Your task to perform on an android device: Go to Reddit.com Image 0: 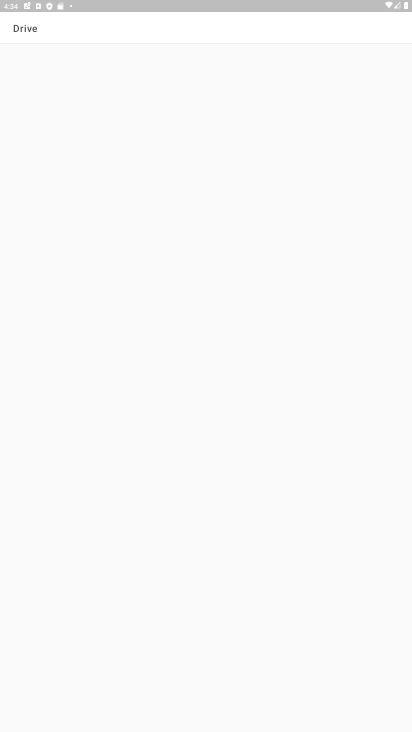
Step 0: press home button
Your task to perform on an android device: Go to Reddit.com Image 1: 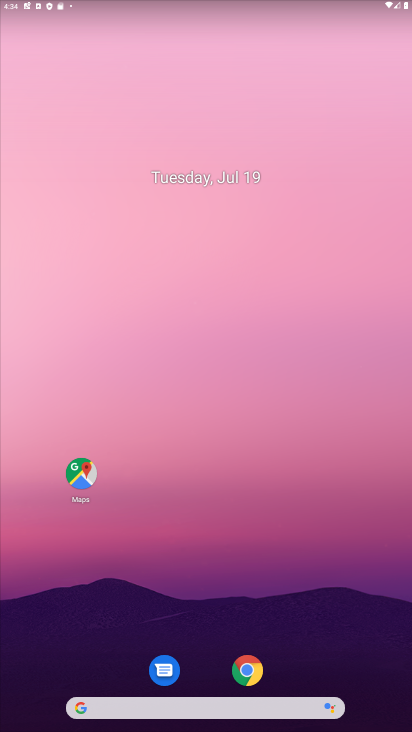
Step 1: drag from (181, 679) to (246, 5)
Your task to perform on an android device: Go to Reddit.com Image 2: 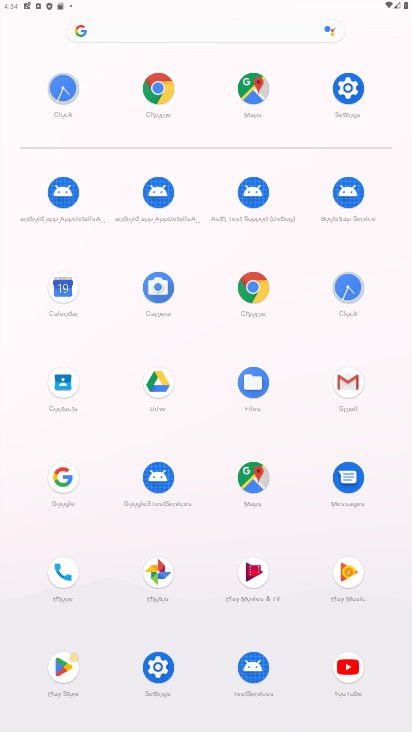
Step 2: click (254, 285)
Your task to perform on an android device: Go to Reddit.com Image 3: 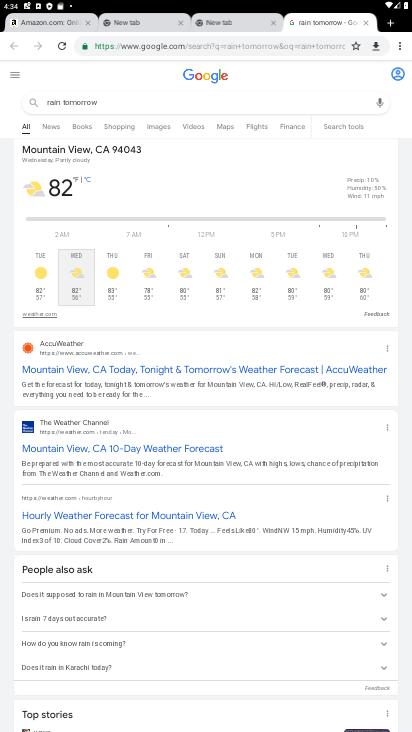
Step 3: click (216, 45)
Your task to perform on an android device: Go to Reddit.com Image 4: 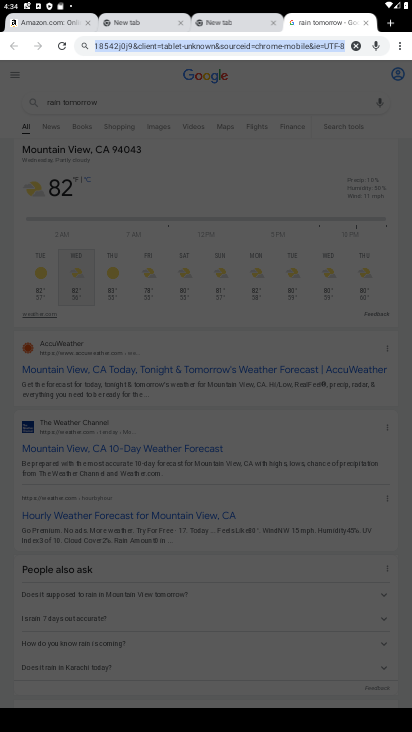
Step 4: type "reddit.com"
Your task to perform on an android device: Go to Reddit.com Image 5: 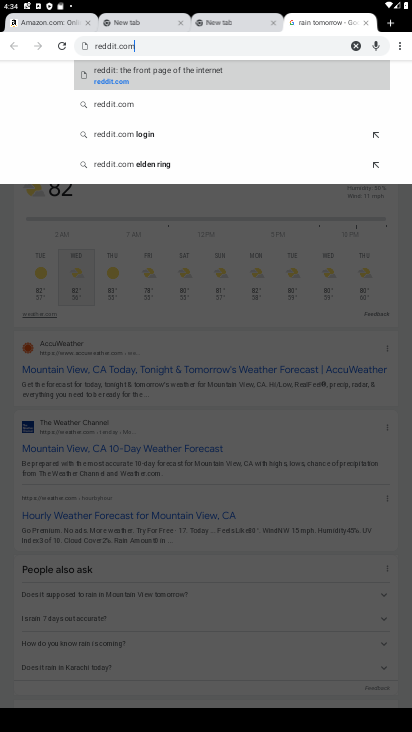
Step 5: click (196, 74)
Your task to perform on an android device: Go to Reddit.com Image 6: 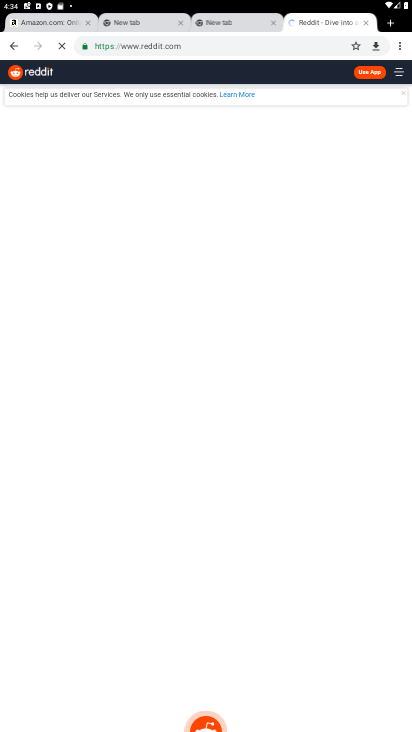
Step 6: task complete